Your task to perform on an android device: Open sound settings Image 0: 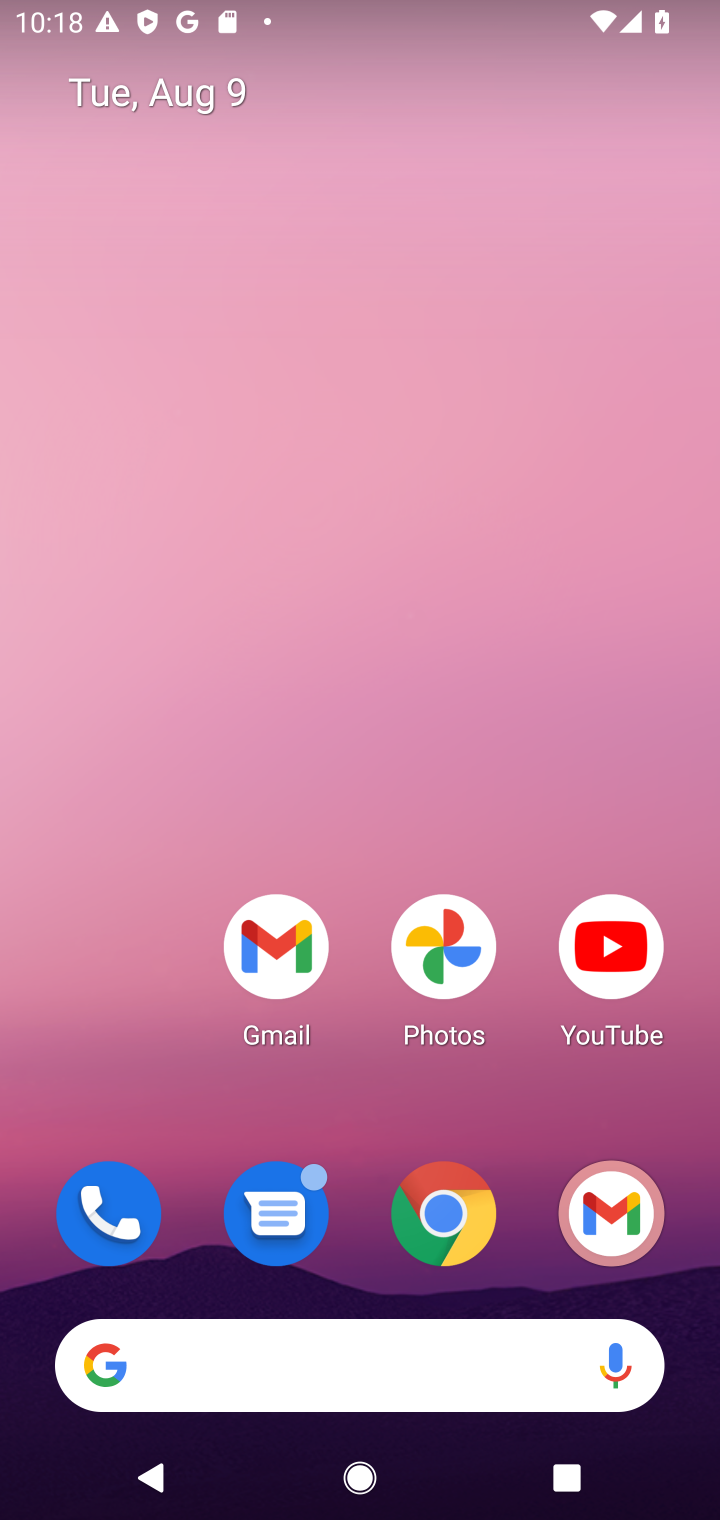
Step 0: drag from (399, 1273) to (426, 133)
Your task to perform on an android device: Open sound settings Image 1: 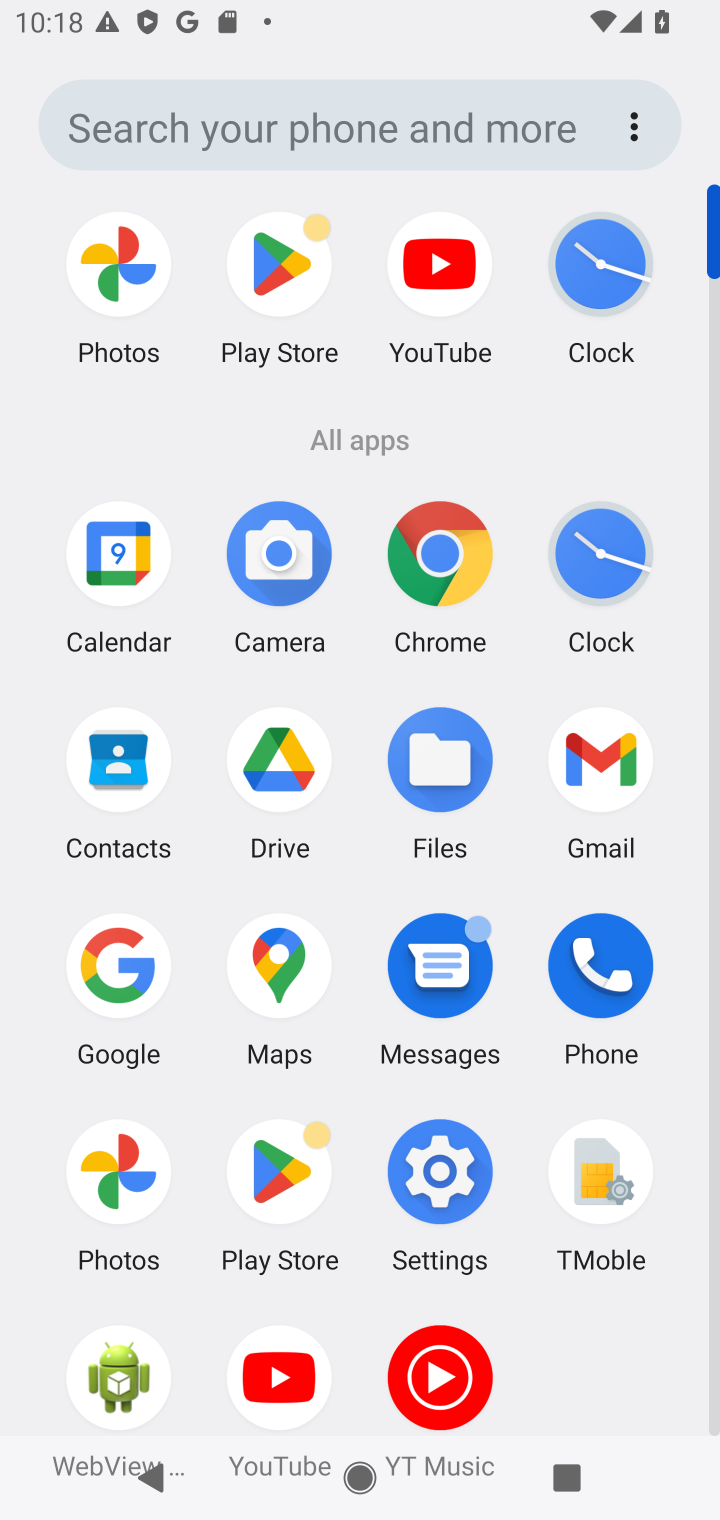
Step 1: click (454, 1163)
Your task to perform on an android device: Open sound settings Image 2: 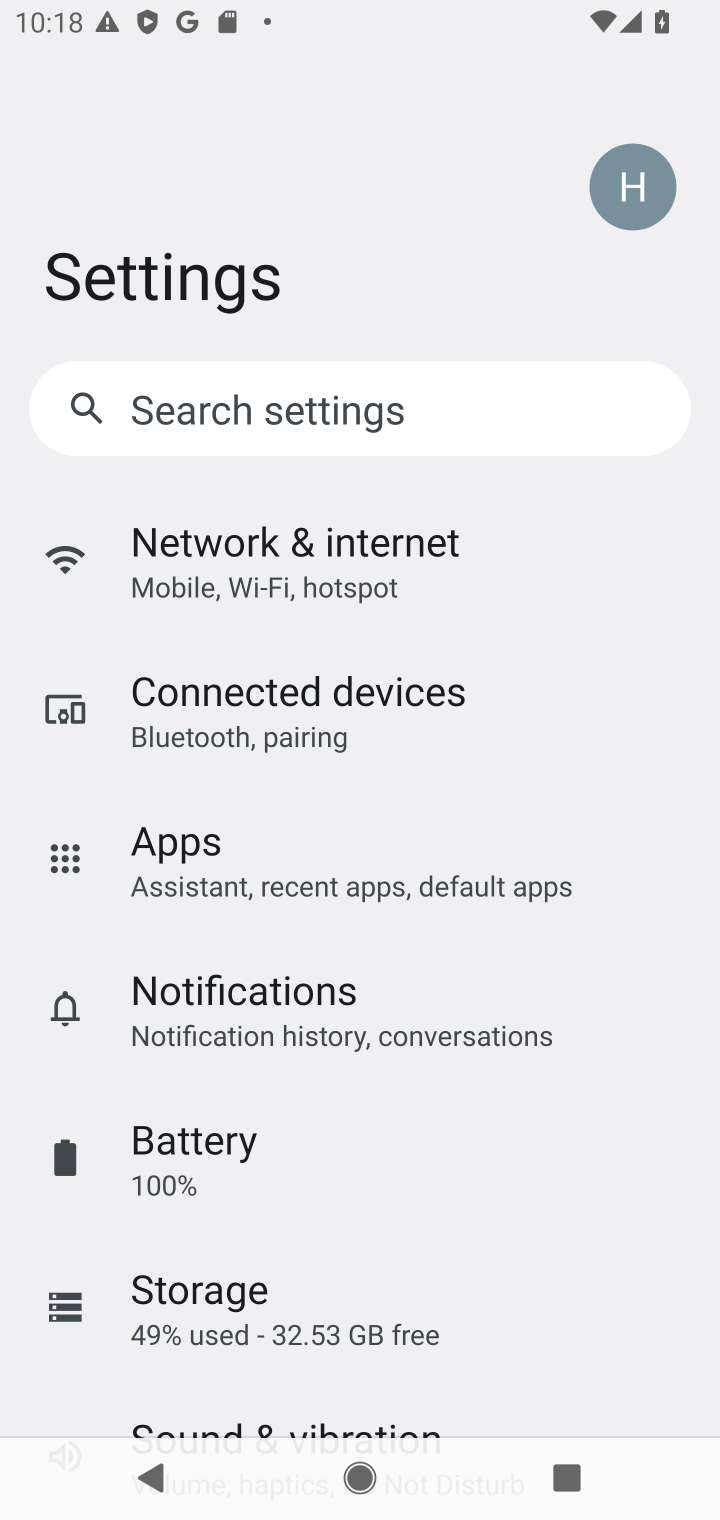
Step 2: drag from (367, 1268) to (289, 416)
Your task to perform on an android device: Open sound settings Image 3: 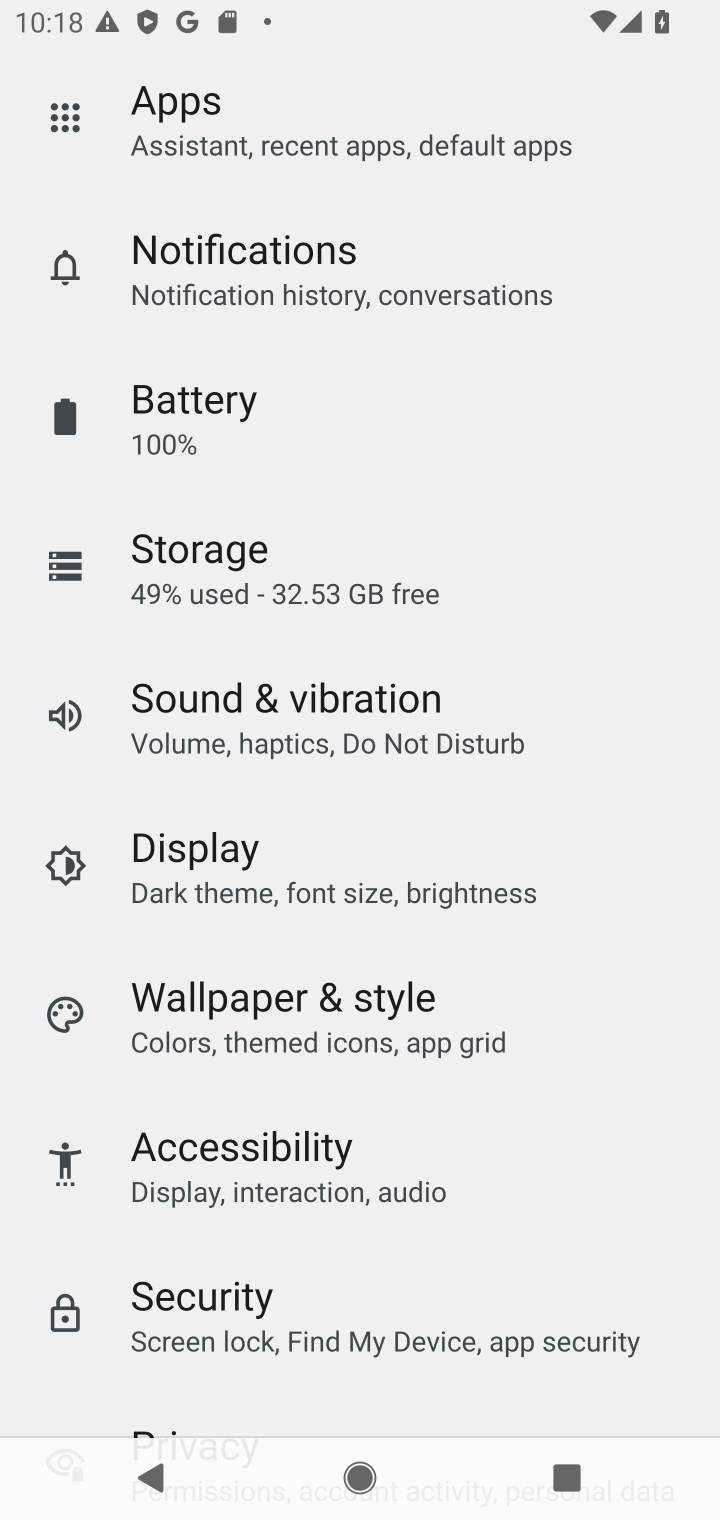
Step 3: click (267, 673)
Your task to perform on an android device: Open sound settings Image 4: 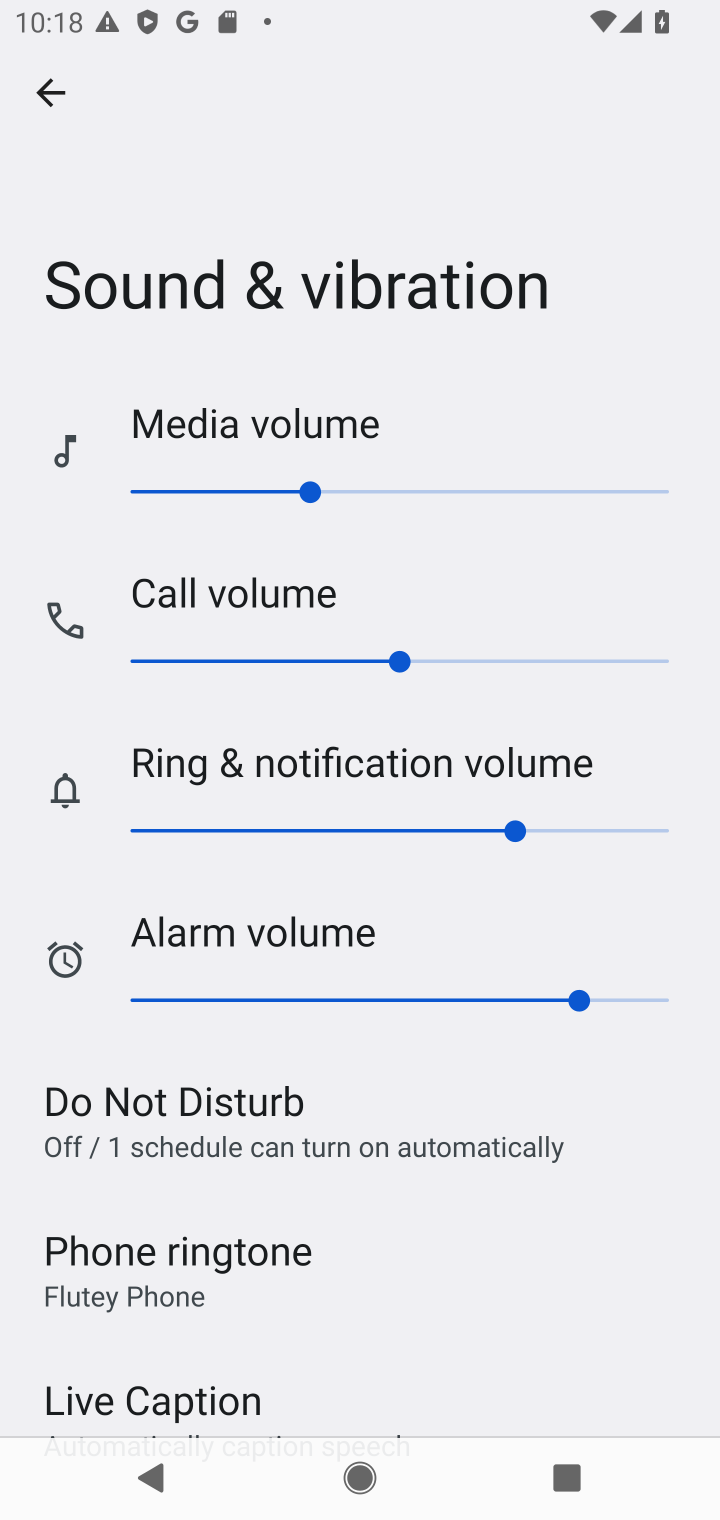
Step 4: task complete